Your task to perform on an android device: Search for pizza restaurants on Maps Image 0: 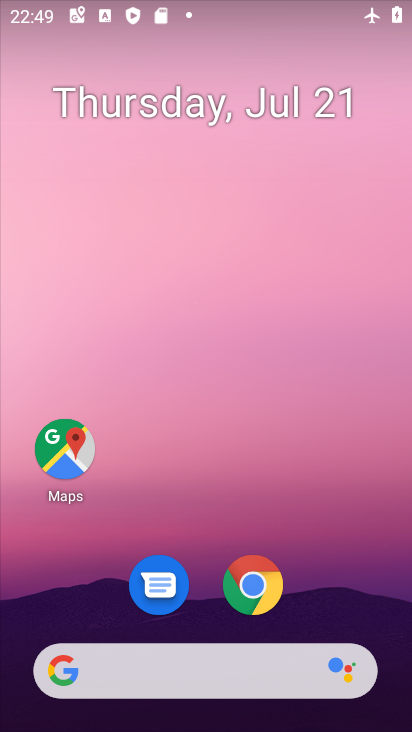
Step 0: click (70, 447)
Your task to perform on an android device: Search for pizza restaurants on Maps Image 1: 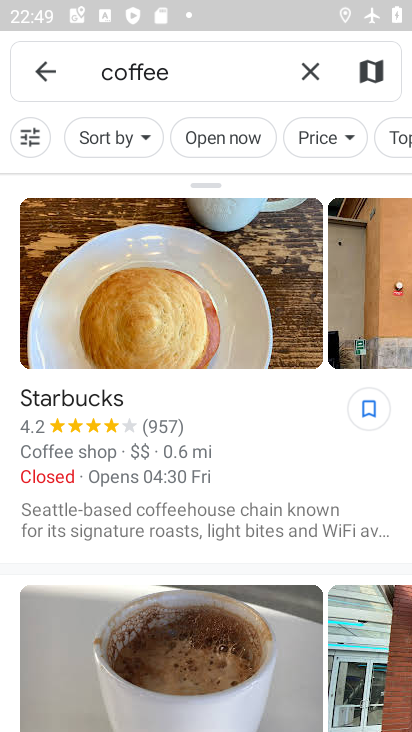
Step 1: click (311, 68)
Your task to perform on an android device: Search for pizza restaurants on Maps Image 2: 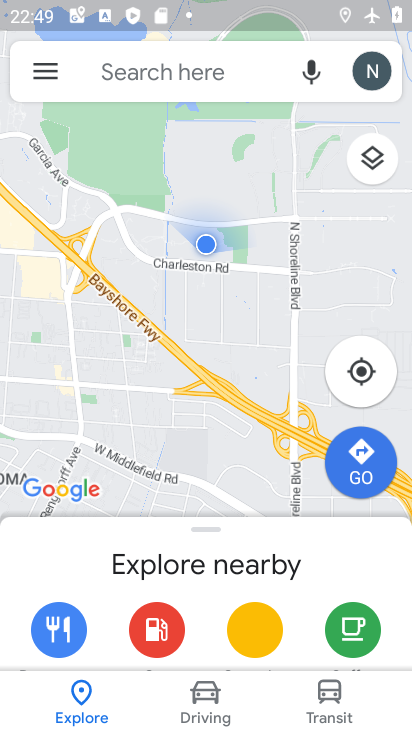
Step 2: click (254, 68)
Your task to perform on an android device: Search for pizza restaurants on Maps Image 3: 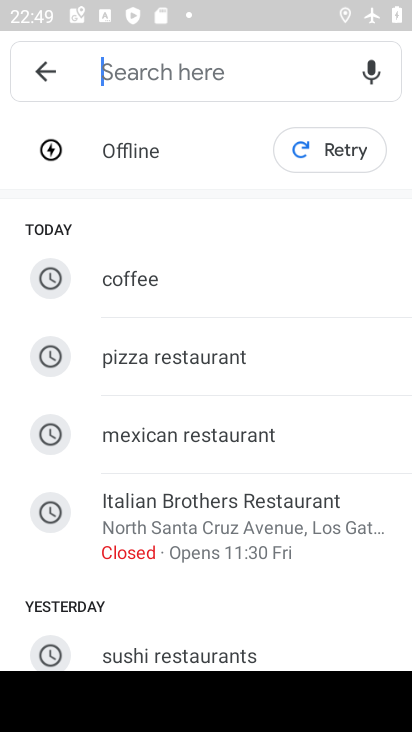
Step 3: click (195, 353)
Your task to perform on an android device: Search for pizza restaurants on Maps Image 4: 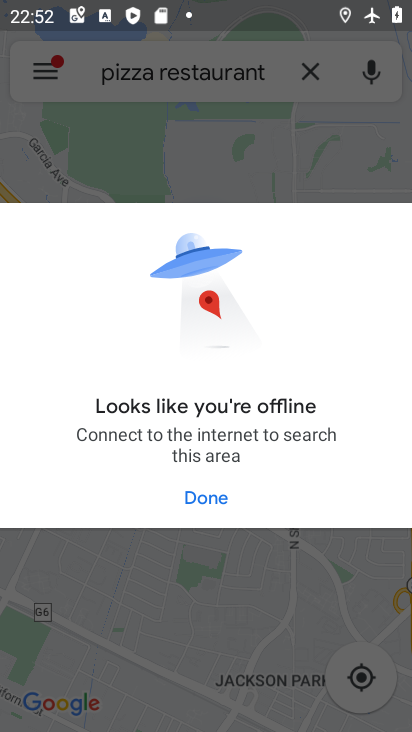
Step 4: task complete